Your task to perform on an android device: change text size in settings app Image 0: 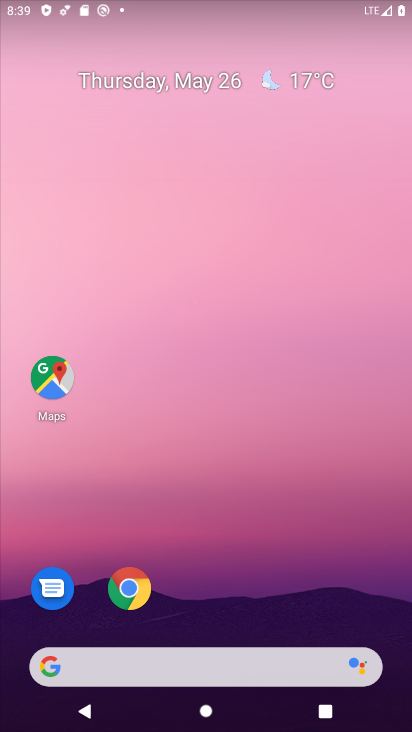
Step 0: drag from (378, 623) to (302, 62)
Your task to perform on an android device: change text size in settings app Image 1: 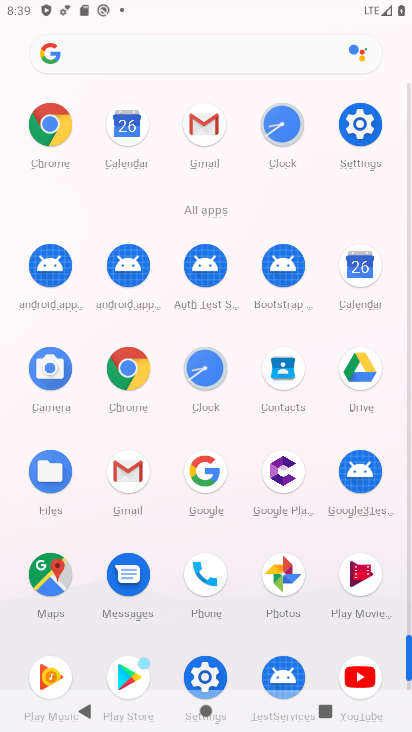
Step 1: click (201, 672)
Your task to perform on an android device: change text size in settings app Image 2: 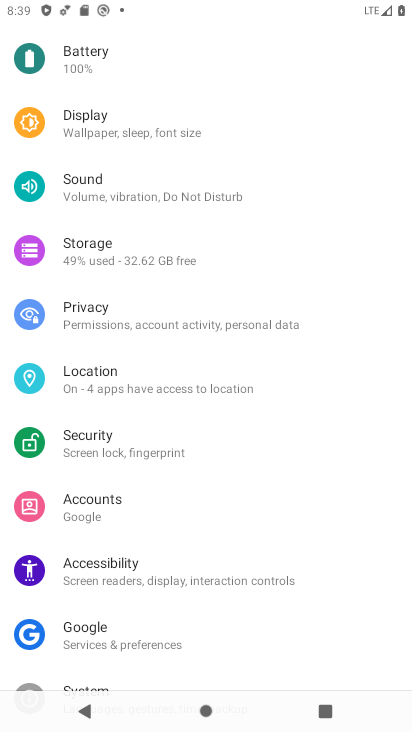
Step 2: click (123, 123)
Your task to perform on an android device: change text size in settings app Image 3: 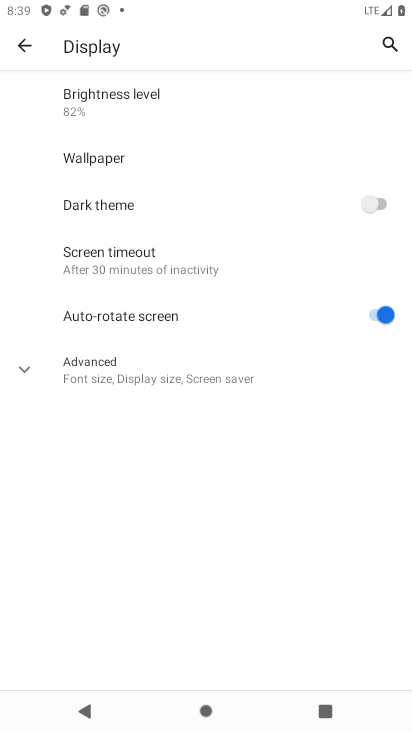
Step 3: click (25, 381)
Your task to perform on an android device: change text size in settings app Image 4: 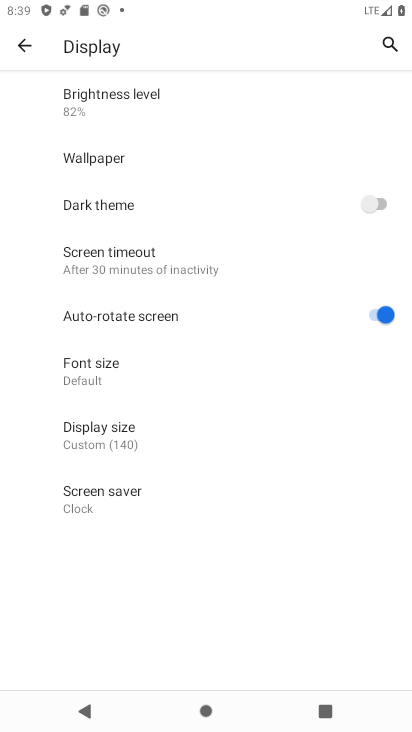
Step 4: click (97, 362)
Your task to perform on an android device: change text size in settings app Image 5: 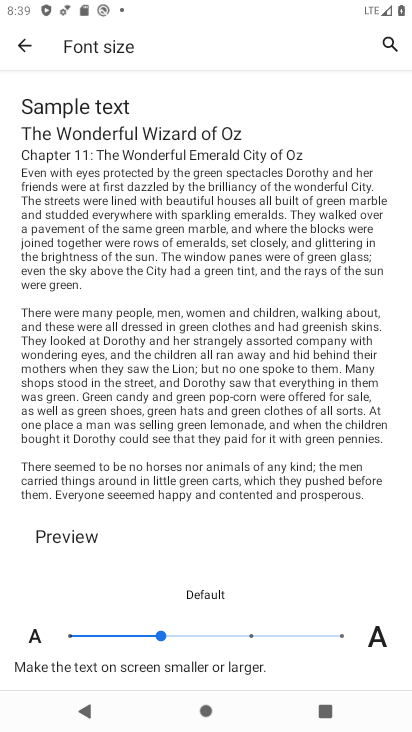
Step 5: click (251, 641)
Your task to perform on an android device: change text size in settings app Image 6: 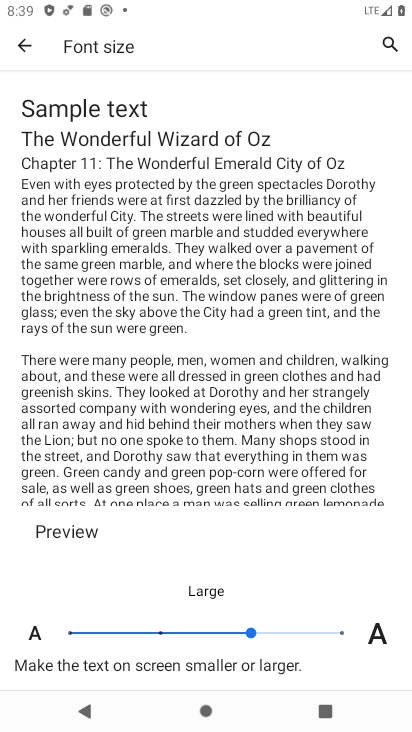
Step 6: task complete